Your task to perform on an android device: check battery use Image 0: 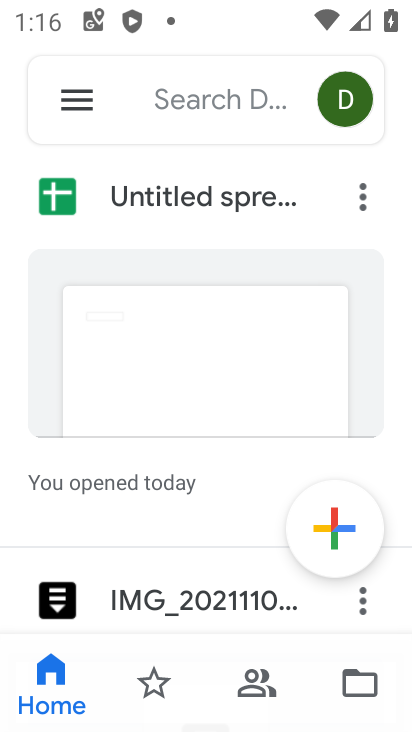
Step 0: press home button
Your task to perform on an android device: check battery use Image 1: 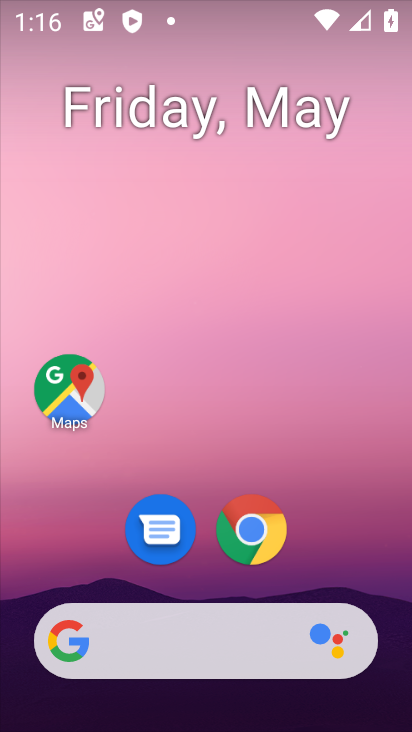
Step 1: click (408, 571)
Your task to perform on an android device: check battery use Image 2: 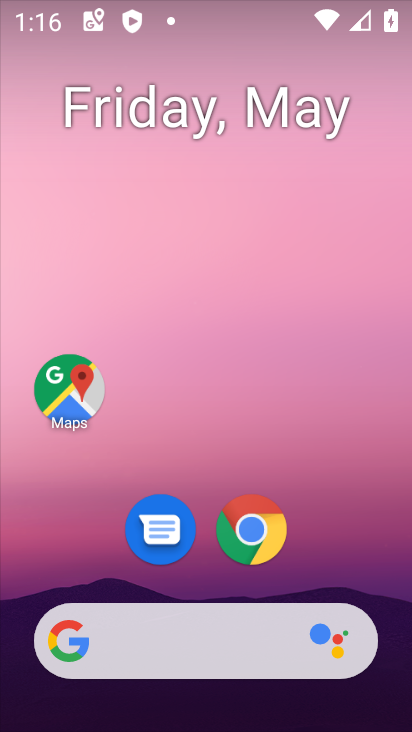
Step 2: drag from (367, 560) to (276, 127)
Your task to perform on an android device: check battery use Image 3: 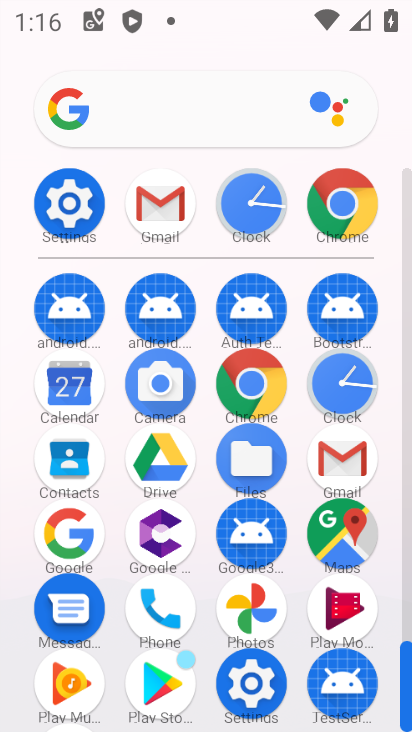
Step 3: click (78, 217)
Your task to perform on an android device: check battery use Image 4: 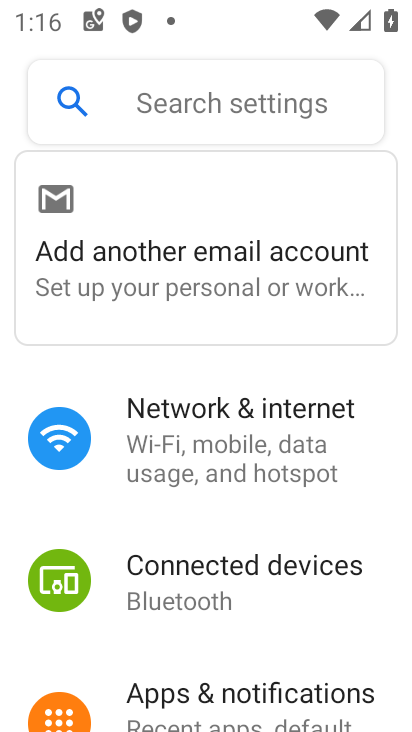
Step 4: drag from (286, 657) to (225, 299)
Your task to perform on an android device: check battery use Image 5: 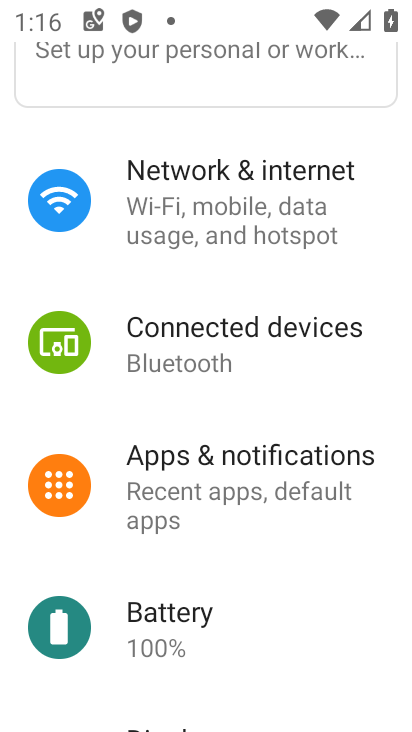
Step 5: click (281, 617)
Your task to perform on an android device: check battery use Image 6: 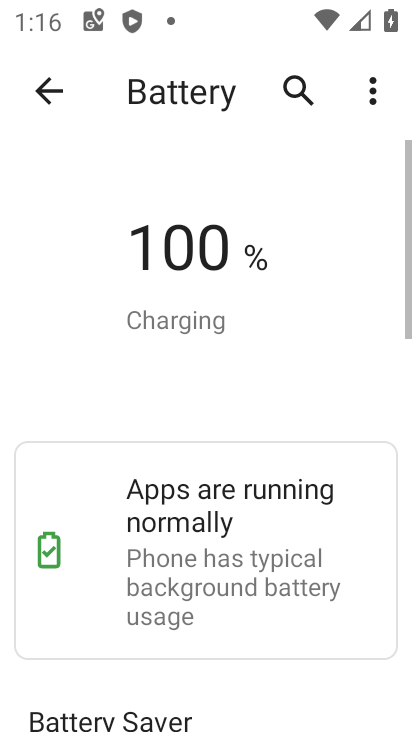
Step 6: task complete